Your task to perform on an android device: Open wifi settings Image 0: 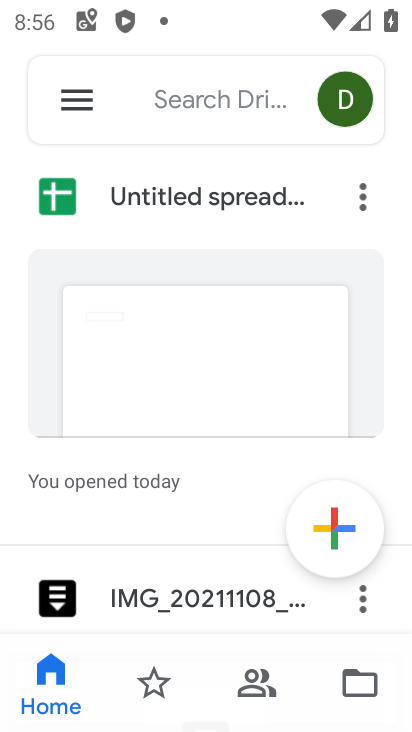
Step 0: press home button
Your task to perform on an android device: Open wifi settings Image 1: 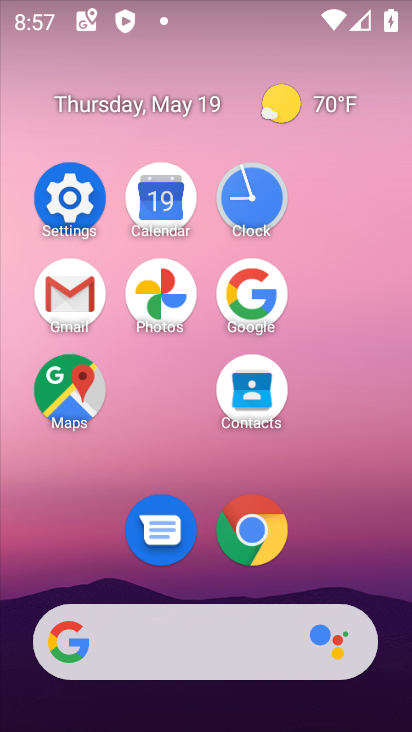
Step 1: click (78, 222)
Your task to perform on an android device: Open wifi settings Image 2: 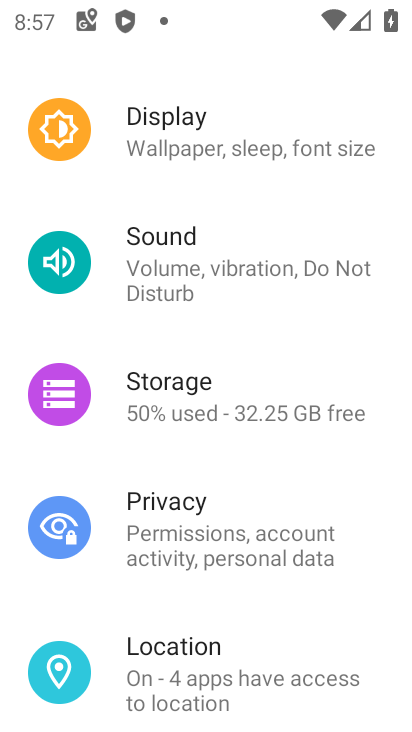
Step 2: drag from (259, 226) to (259, 621)
Your task to perform on an android device: Open wifi settings Image 3: 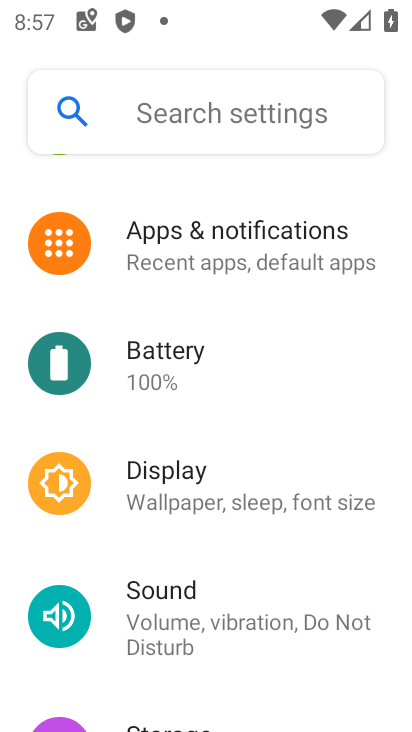
Step 3: drag from (300, 333) to (297, 682)
Your task to perform on an android device: Open wifi settings Image 4: 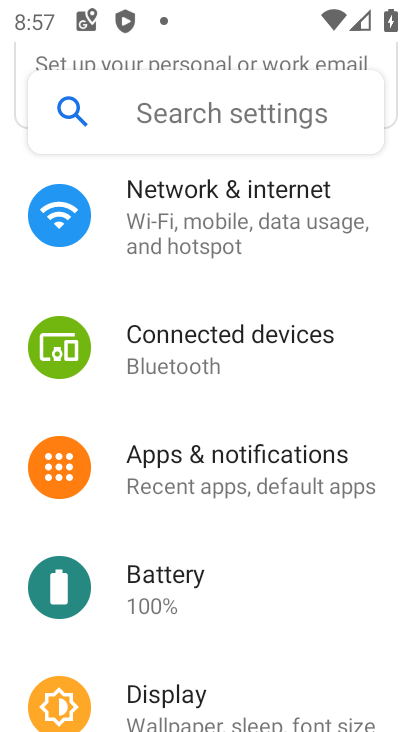
Step 4: click (266, 230)
Your task to perform on an android device: Open wifi settings Image 5: 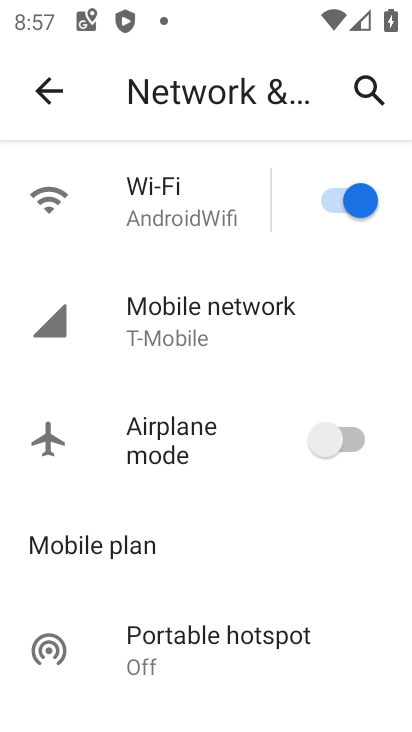
Step 5: click (178, 208)
Your task to perform on an android device: Open wifi settings Image 6: 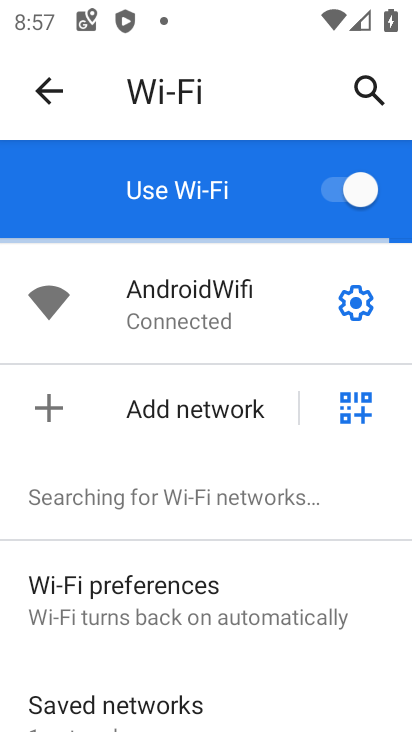
Step 6: click (363, 307)
Your task to perform on an android device: Open wifi settings Image 7: 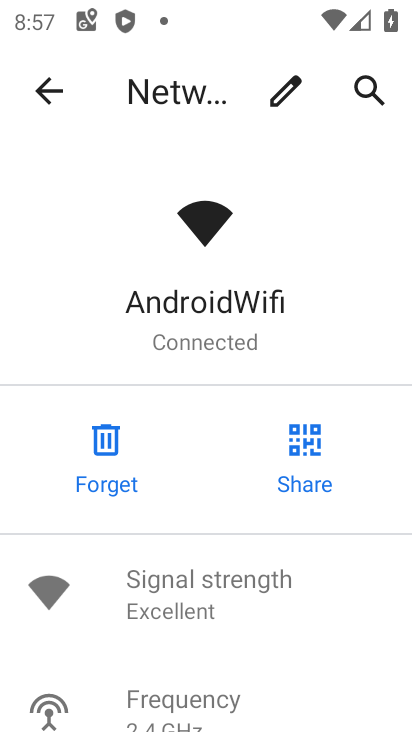
Step 7: task complete